Your task to perform on an android device: turn off location history Image 0: 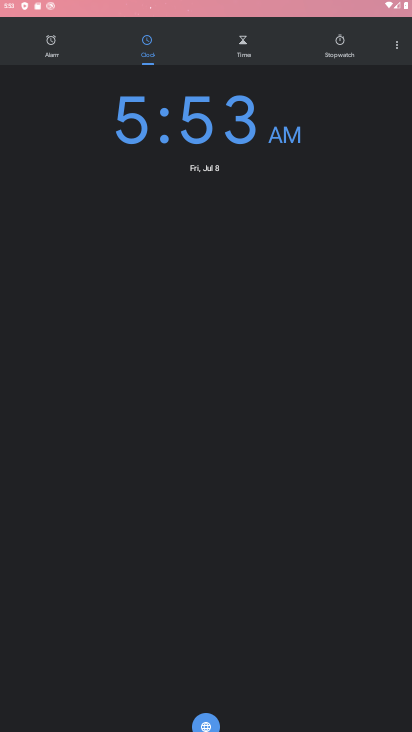
Step 0: click (323, 170)
Your task to perform on an android device: turn off location history Image 1: 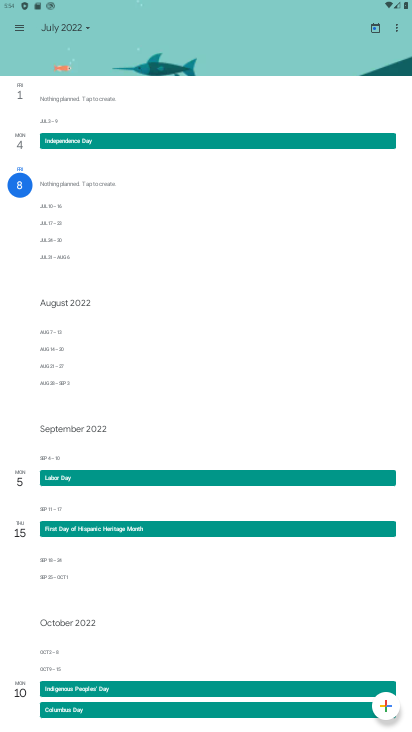
Step 1: press home button
Your task to perform on an android device: turn off location history Image 2: 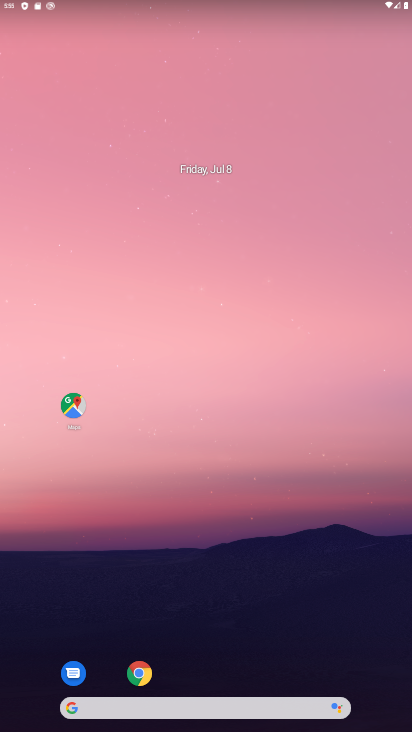
Step 2: click (60, 407)
Your task to perform on an android device: turn off location history Image 3: 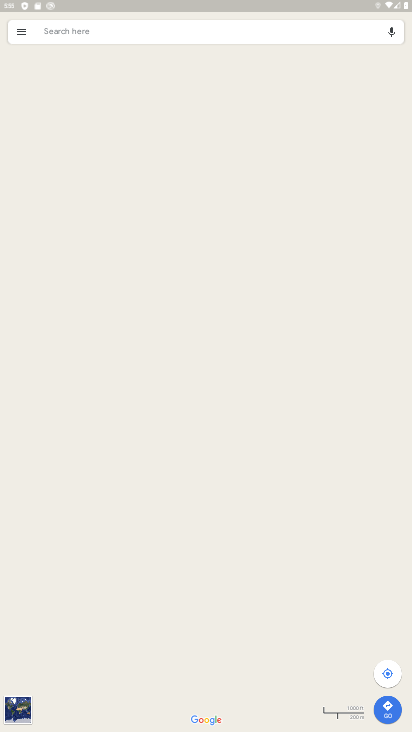
Step 3: click (13, 31)
Your task to perform on an android device: turn off location history Image 4: 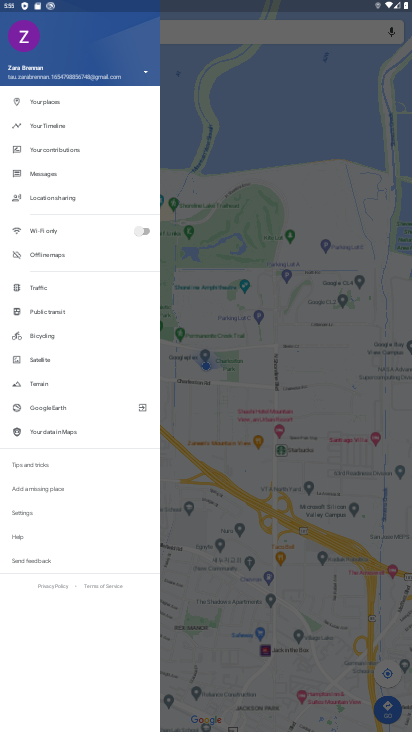
Step 4: click (43, 131)
Your task to perform on an android device: turn off location history Image 5: 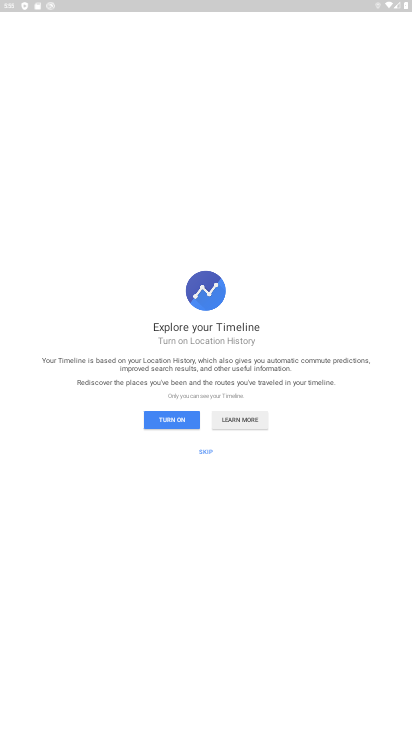
Step 5: click (215, 449)
Your task to perform on an android device: turn off location history Image 6: 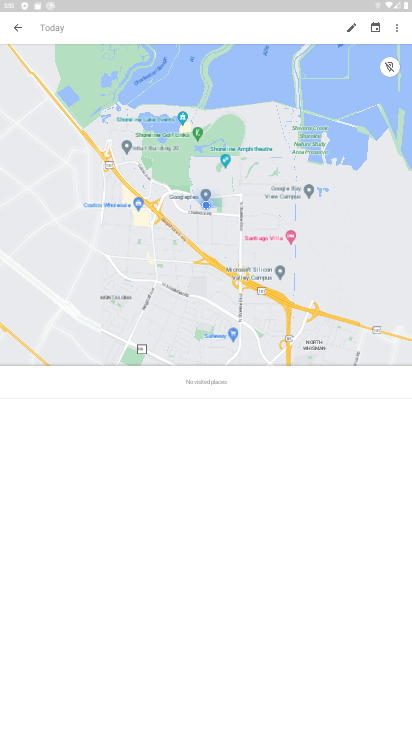
Step 6: click (389, 37)
Your task to perform on an android device: turn off location history Image 7: 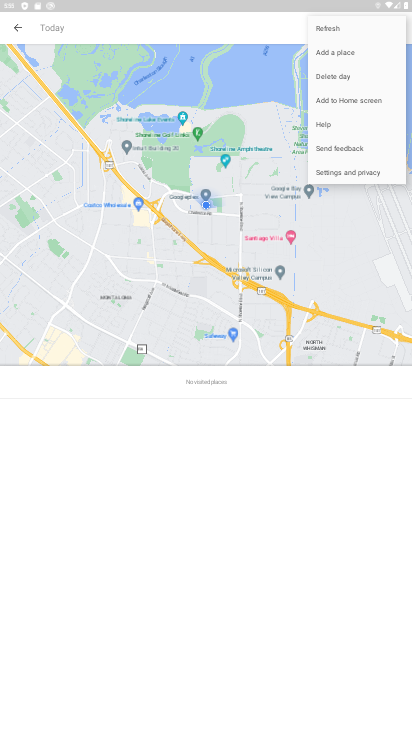
Step 7: click (336, 181)
Your task to perform on an android device: turn off location history Image 8: 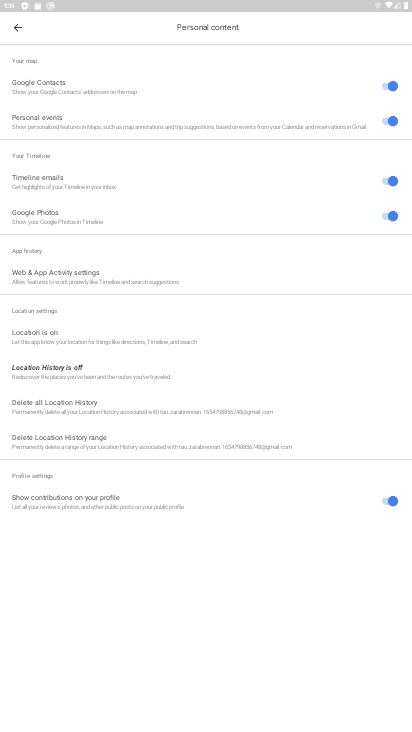
Step 8: click (55, 372)
Your task to perform on an android device: turn off location history Image 9: 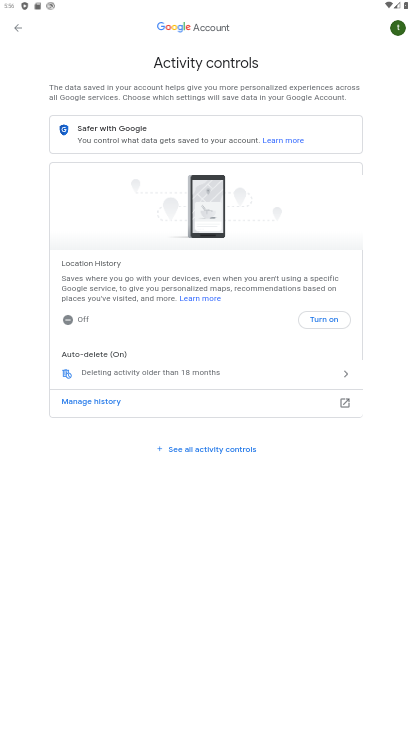
Step 9: task complete